Your task to perform on an android device: Go to settings Image 0: 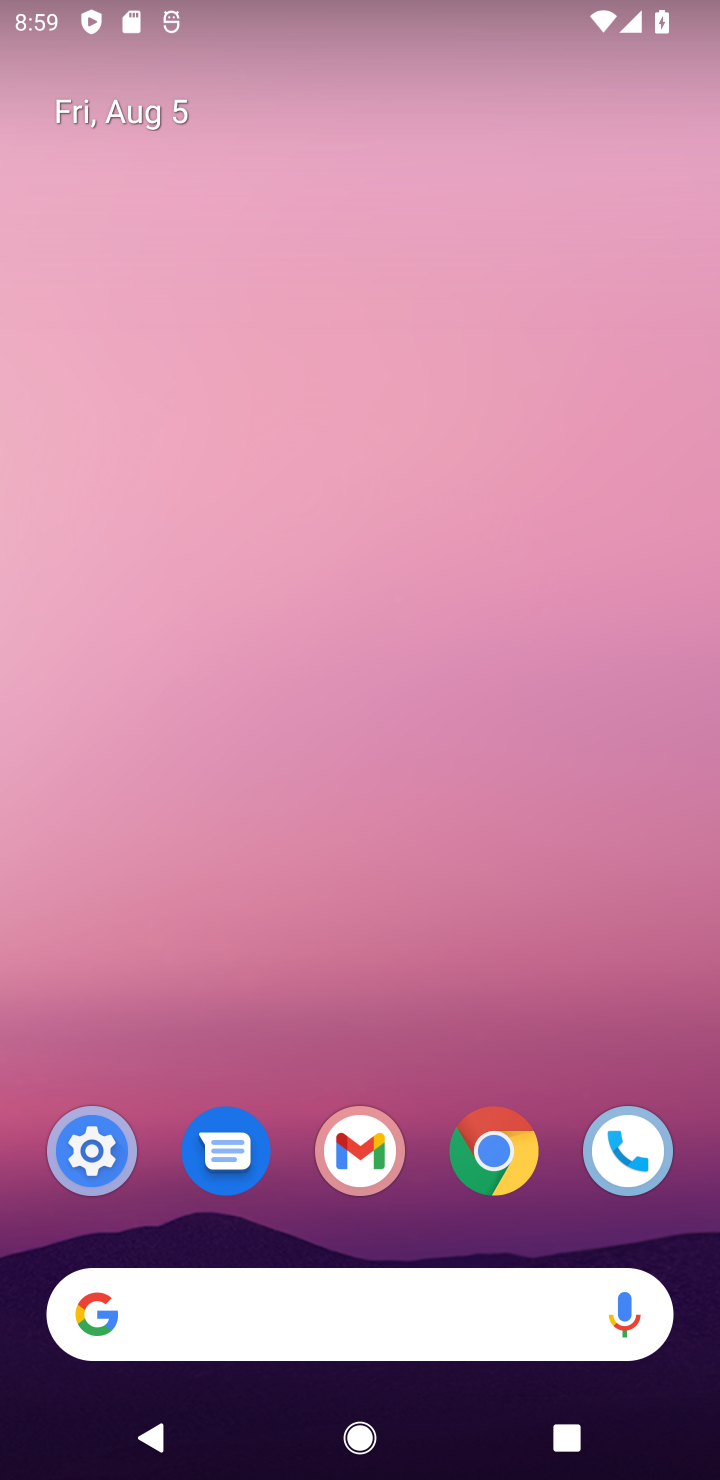
Step 0: click (84, 1152)
Your task to perform on an android device: Go to settings Image 1: 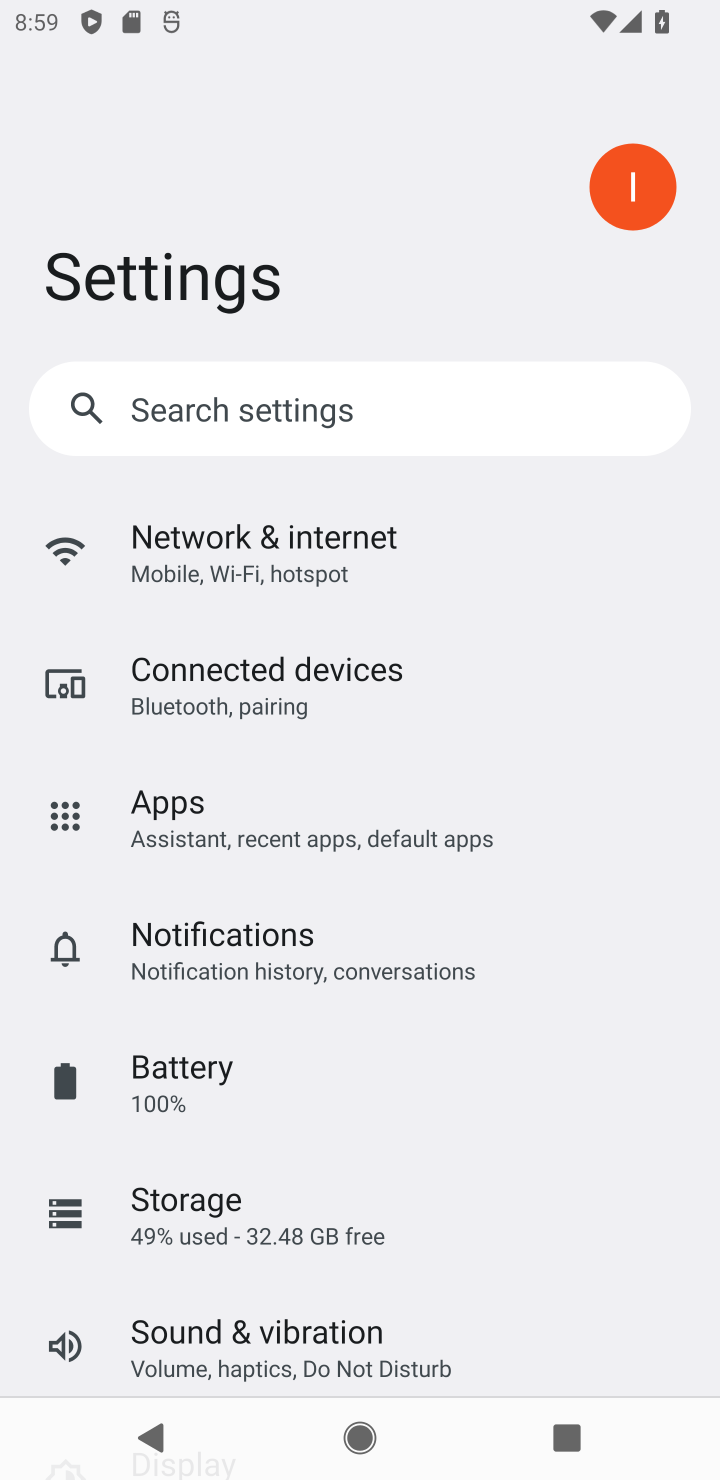
Step 1: task complete